Your task to perform on an android device: stop showing notifications on the lock screen Image 0: 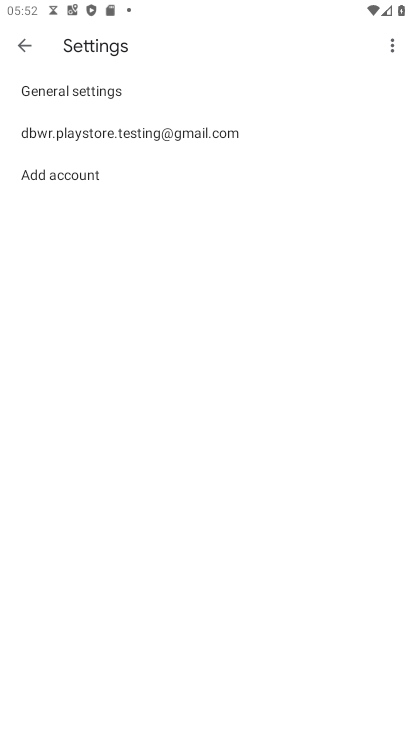
Step 0: press home button
Your task to perform on an android device: stop showing notifications on the lock screen Image 1: 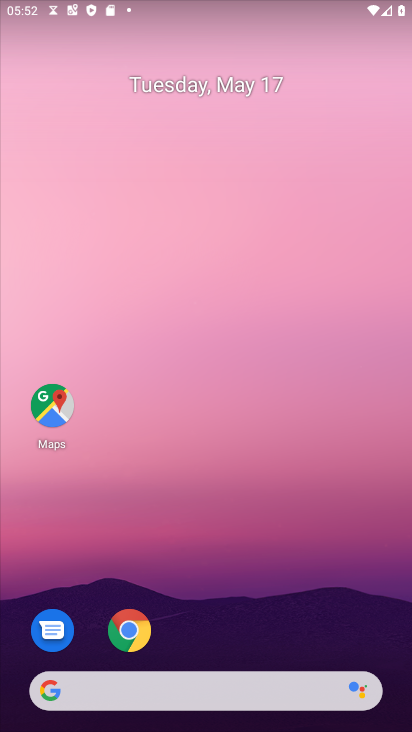
Step 1: drag from (132, 524) to (216, 33)
Your task to perform on an android device: stop showing notifications on the lock screen Image 2: 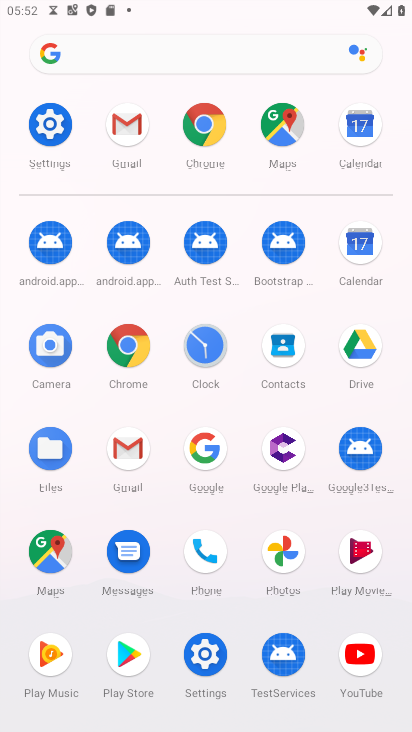
Step 2: click (60, 115)
Your task to perform on an android device: stop showing notifications on the lock screen Image 3: 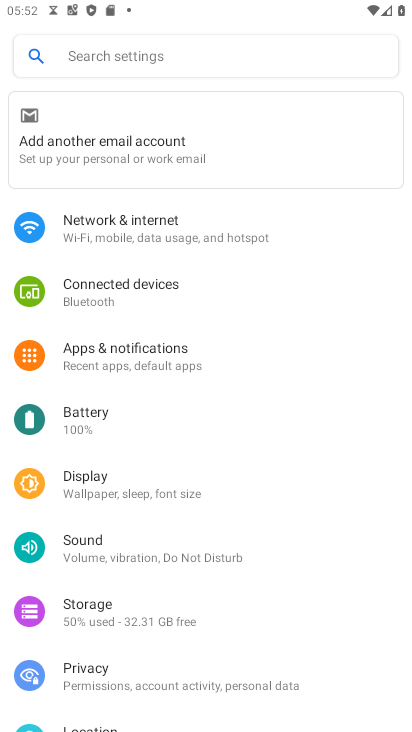
Step 3: click (162, 351)
Your task to perform on an android device: stop showing notifications on the lock screen Image 4: 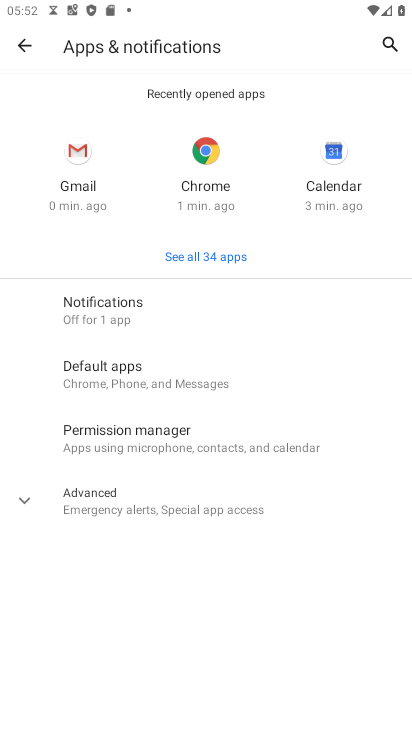
Step 4: click (79, 314)
Your task to perform on an android device: stop showing notifications on the lock screen Image 5: 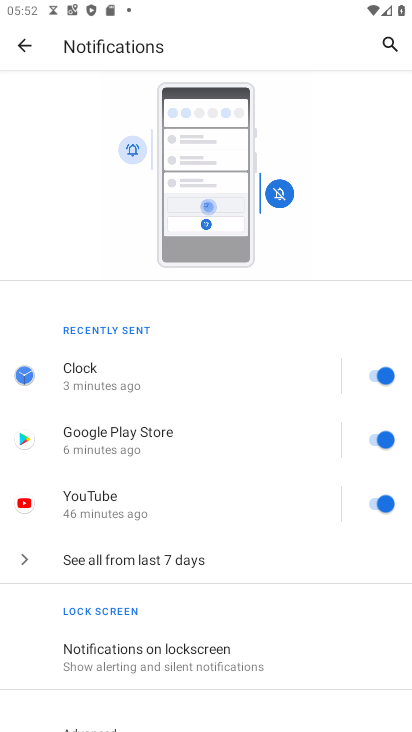
Step 5: click (167, 653)
Your task to perform on an android device: stop showing notifications on the lock screen Image 6: 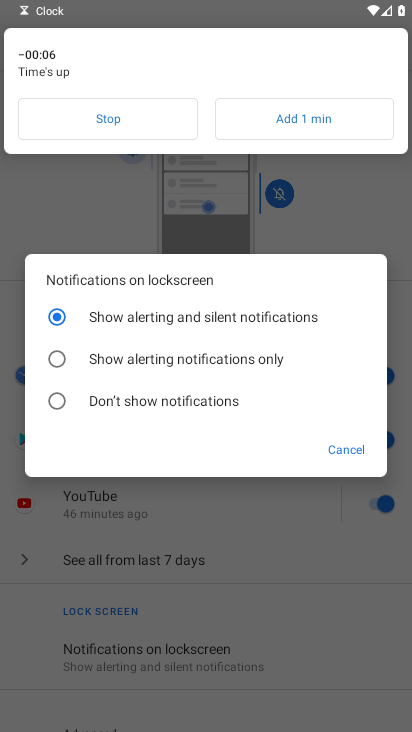
Step 6: click (174, 393)
Your task to perform on an android device: stop showing notifications on the lock screen Image 7: 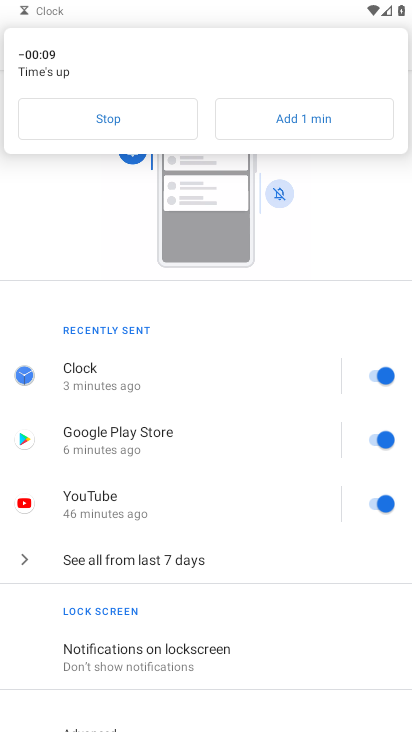
Step 7: task complete